Your task to perform on an android device: Open settings Image 0: 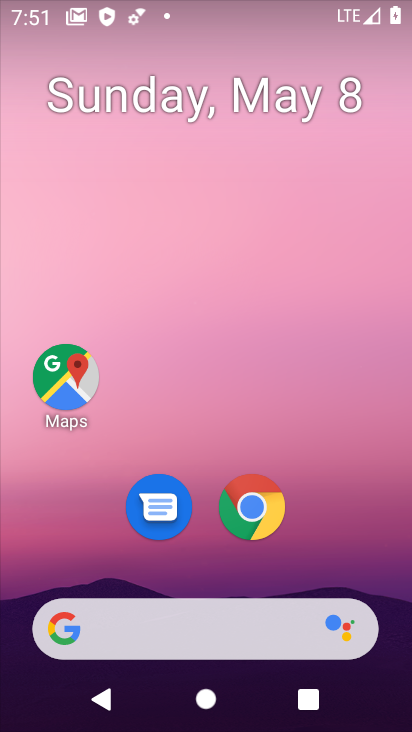
Step 0: drag from (263, 695) to (268, 17)
Your task to perform on an android device: Open settings Image 1: 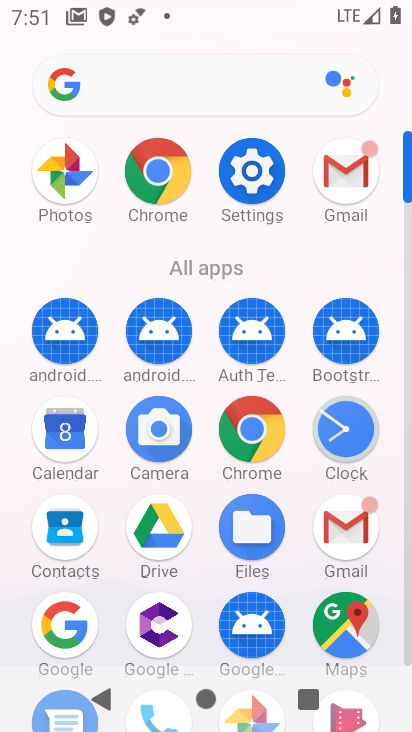
Step 1: click (251, 174)
Your task to perform on an android device: Open settings Image 2: 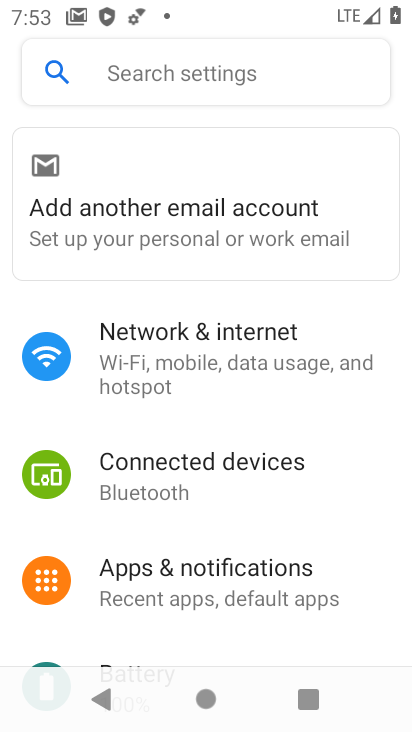
Step 2: task complete